Your task to perform on an android device: Search for Italian restaurants on Maps Image 0: 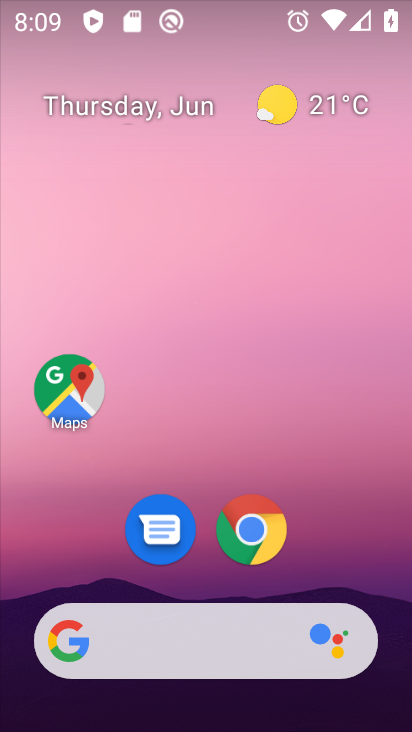
Step 0: click (80, 387)
Your task to perform on an android device: Search for Italian restaurants on Maps Image 1: 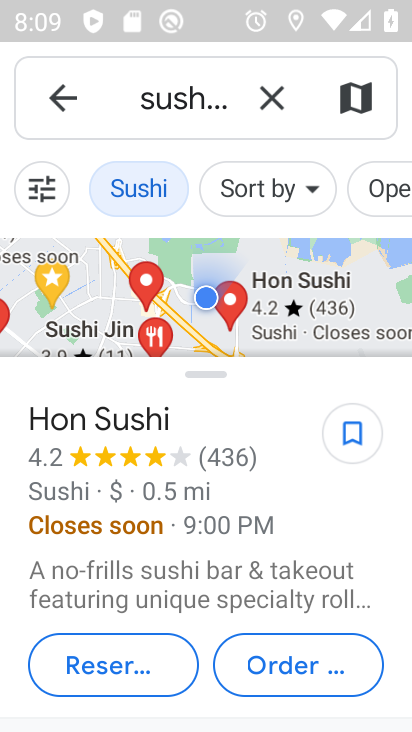
Step 1: click (272, 90)
Your task to perform on an android device: Search for Italian restaurants on Maps Image 2: 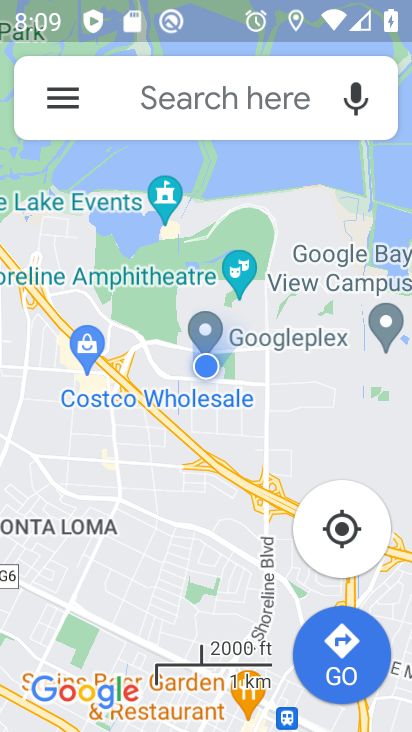
Step 2: click (143, 94)
Your task to perform on an android device: Search for Italian restaurants on Maps Image 3: 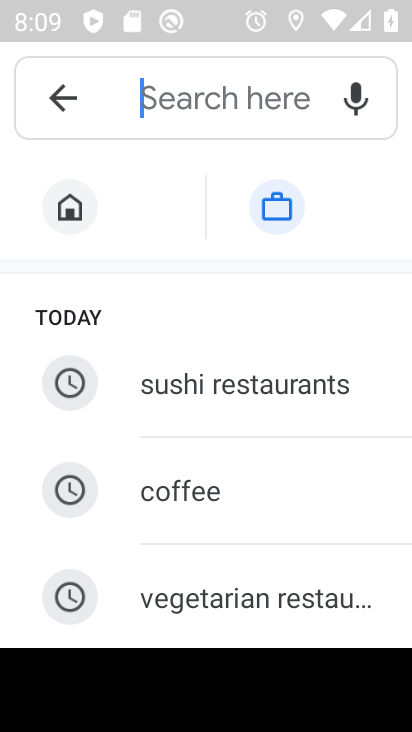
Step 3: type "Italian restaurants"
Your task to perform on an android device: Search for Italian restaurants on Maps Image 4: 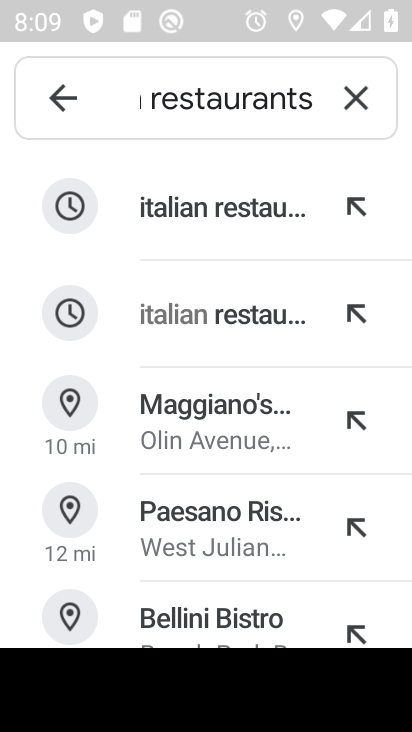
Step 4: click (161, 211)
Your task to perform on an android device: Search for Italian restaurants on Maps Image 5: 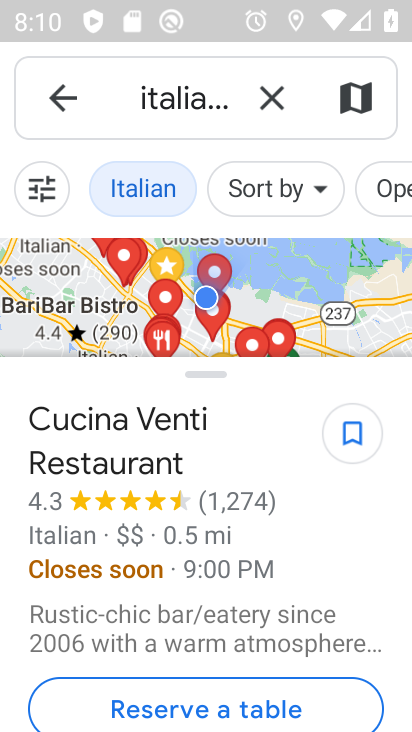
Step 5: task complete